Your task to perform on an android device: Go to Android settings Image 0: 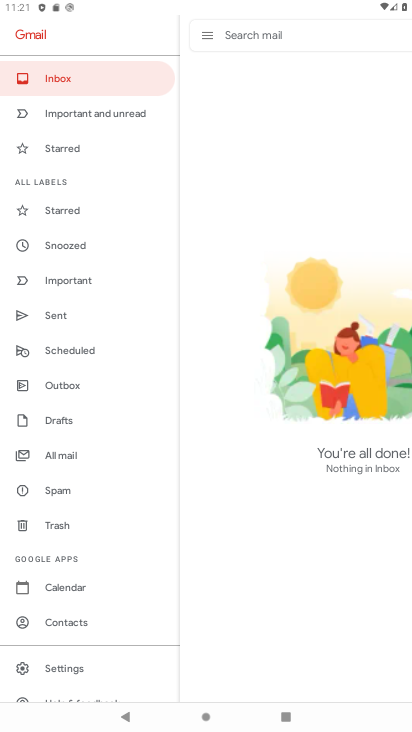
Step 0: press home button
Your task to perform on an android device: Go to Android settings Image 1: 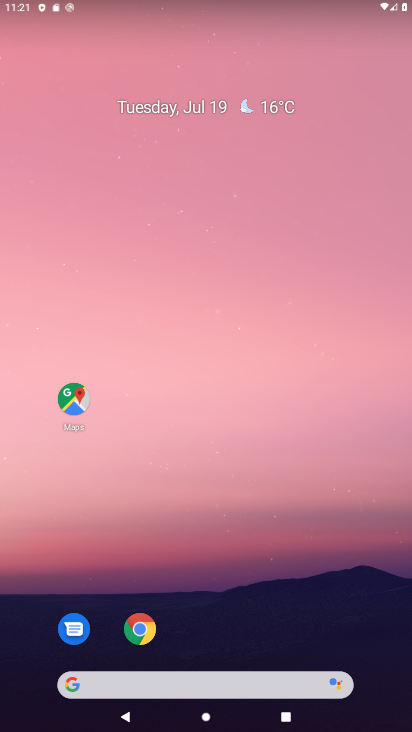
Step 1: drag from (396, 697) to (364, 222)
Your task to perform on an android device: Go to Android settings Image 2: 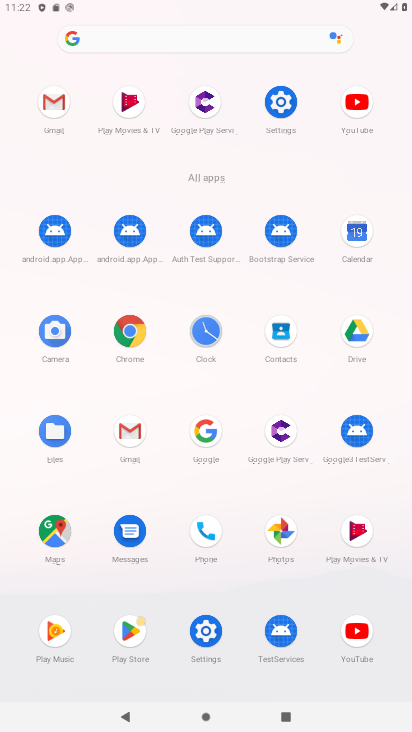
Step 2: click (279, 109)
Your task to perform on an android device: Go to Android settings Image 3: 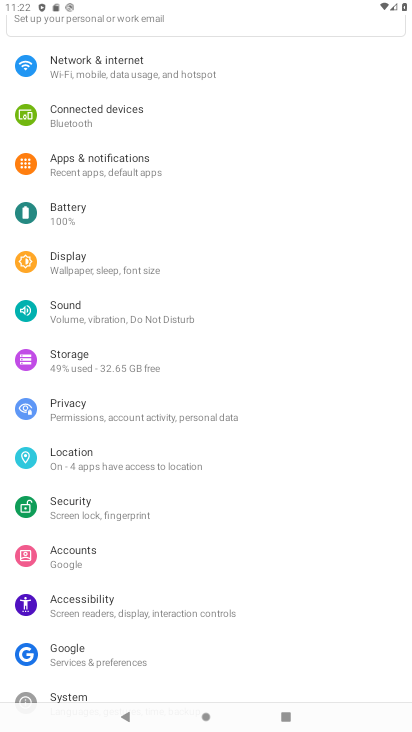
Step 3: task complete